Your task to perform on an android device: Set the phone to "Do not disturb". Image 0: 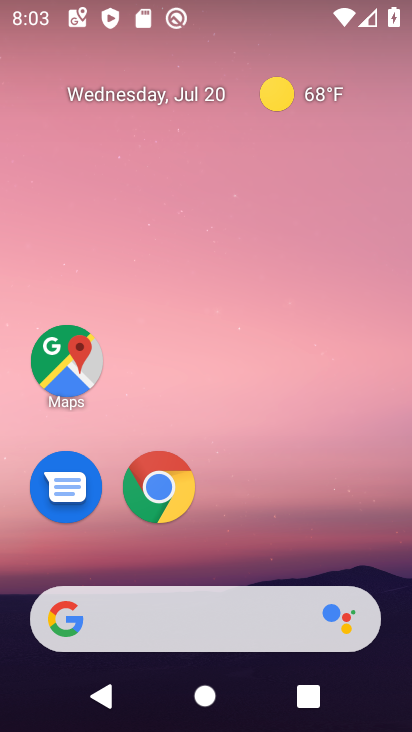
Step 0: drag from (343, 528) to (363, 94)
Your task to perform on an android device: Set the phone to "Do not disturb". Image 1: 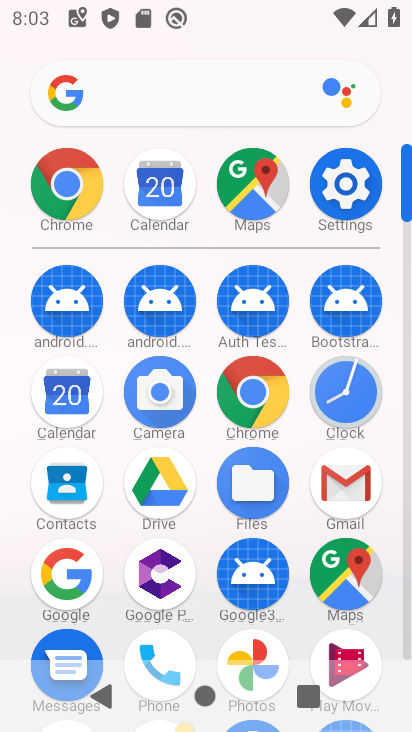
Step 1: click (360, 184)
Your task to perform on an android device: Set the phone to "Do not disturb". Image 2: 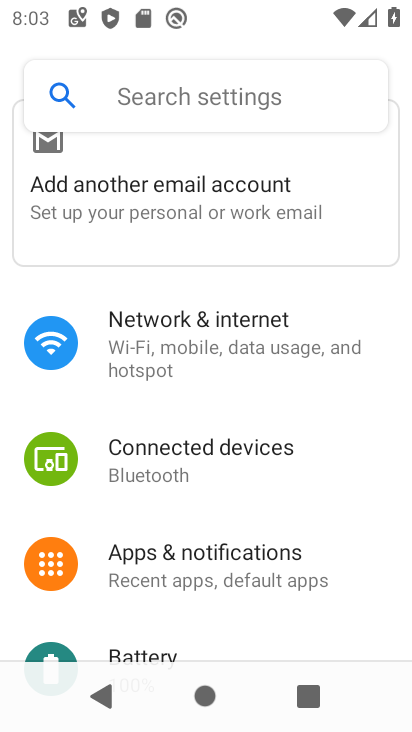
Step 2: drag from (356, 467) to (368, 402)
Your task to perform on an android device: Set the phone to "Do not disturb". Image 3: 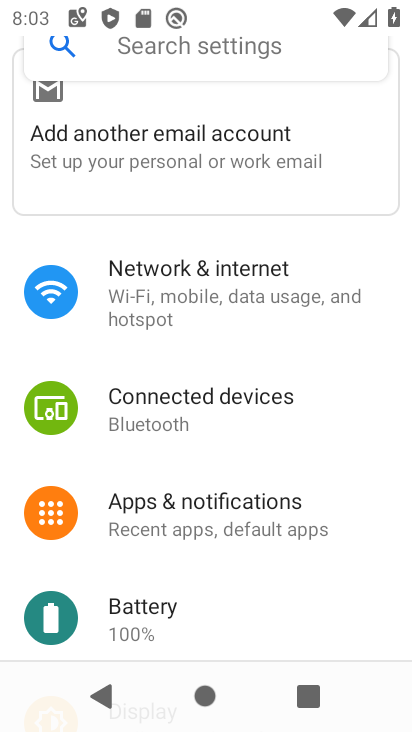
Step 3: drag from (346, 500) to (325, 376)
Your task to perform on an android device: Set the phone to "Do not disturb". Image 4: 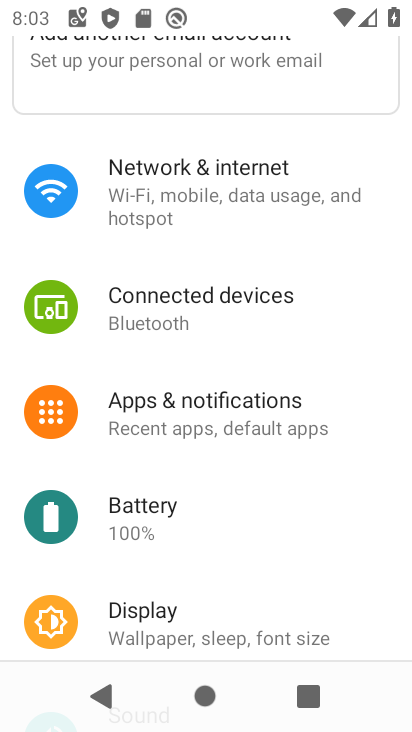
Step 4: drag from (323, 555) to (344, 425)
Your task to perform on an android device: Set the phone to "Do not disturb". Image 5: 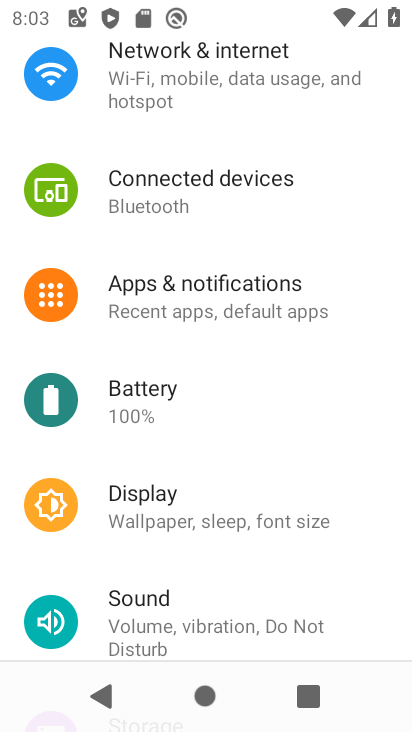
Step 5: drag from (373, 567) to (354, 432)
Your task to perform on an android device: Set the phone to "Do not disturb". Image 6: 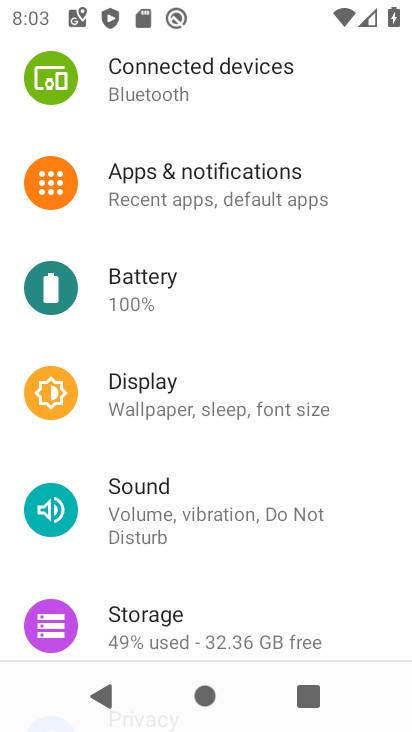
Step 6: drag from (377, 542) to (386, 400)
Your task to perform on an android device: Set the phone to "Do not disturb". Image 7: 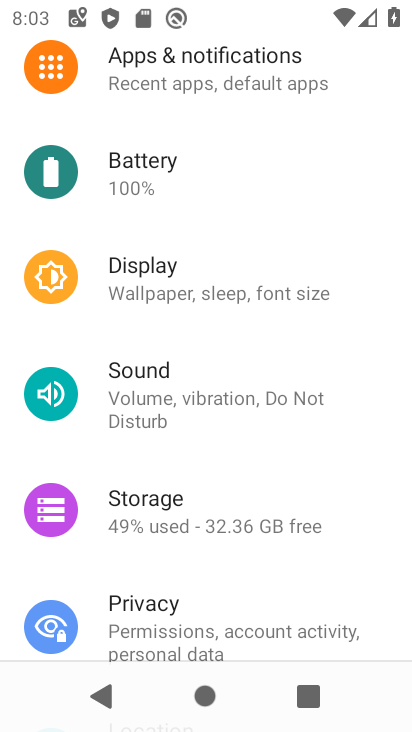
Step 7: drag from (364, 504) to (374, 361)
Your task to perform on an android device: Set the phone to "Do not disturb". Image 8: 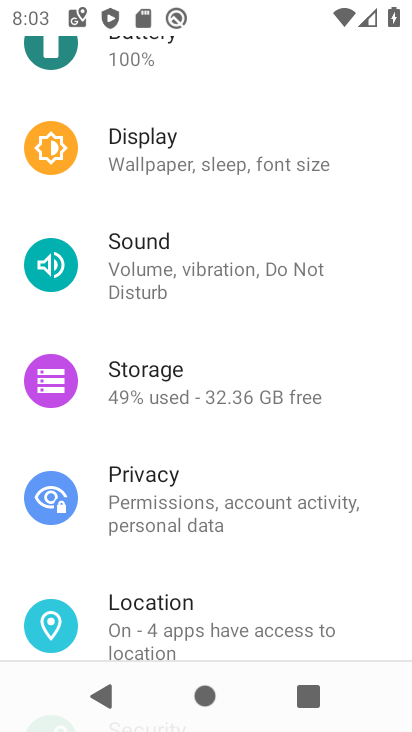
Step 8: click (312, 272)
Your task to perform on an android device: Set the phone to "Do not disturb". Image 9: 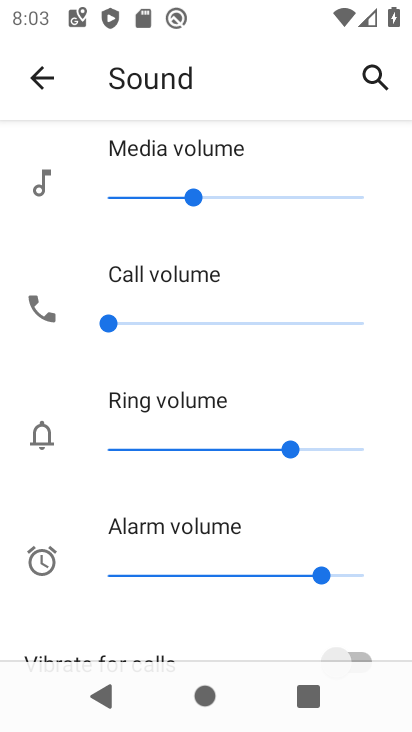
Step 9: drag from (383, 404) to (379, 285)
Your task to perform on an android device: Set the phone to "Do not disturb". Image 10: 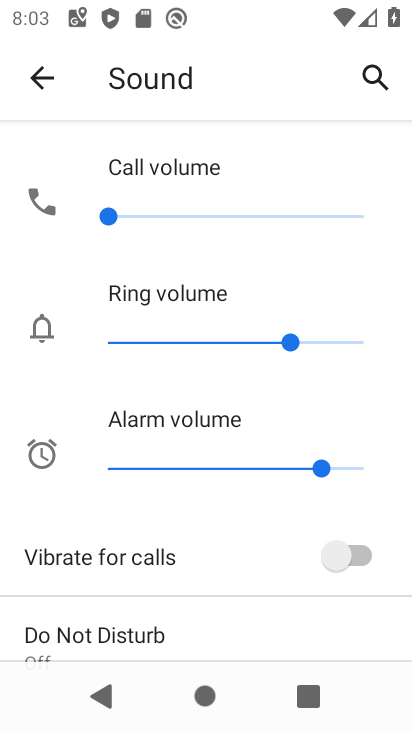
Step 10: drag from (365, 437) to (362, 258)
Your task to perform on an android device: Set the phone to "Do not disturb". Image 11: 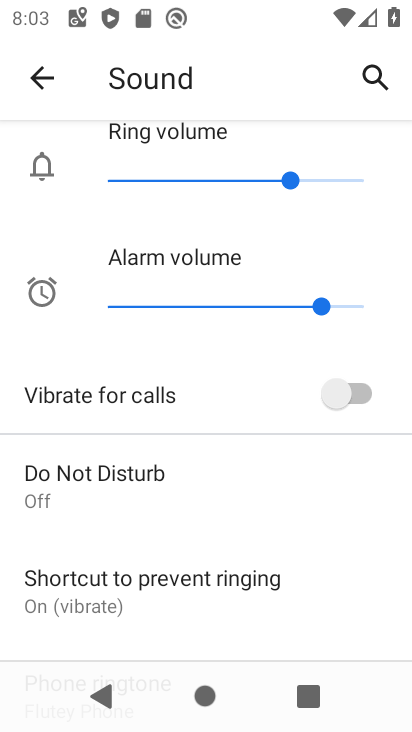
Step 11: click (212, 512)
Your task to perform on an android device: Set the phone to "Do not disturb". Image 12: 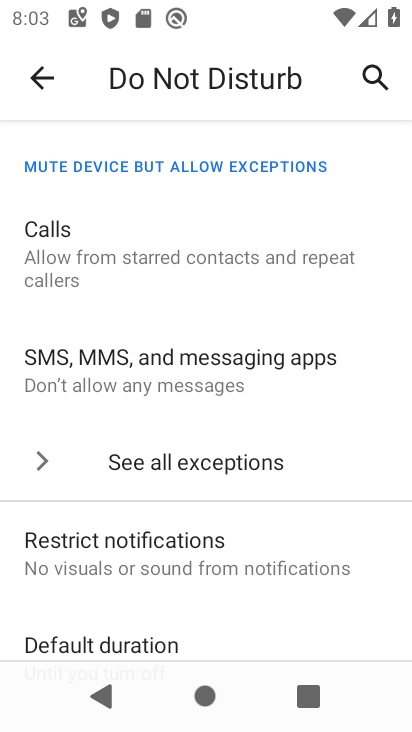
Step 12: drag from (332, 574) to (342, 428)
Your task to perform on an android device: Set the phone to "Do not disturb". Image 13: 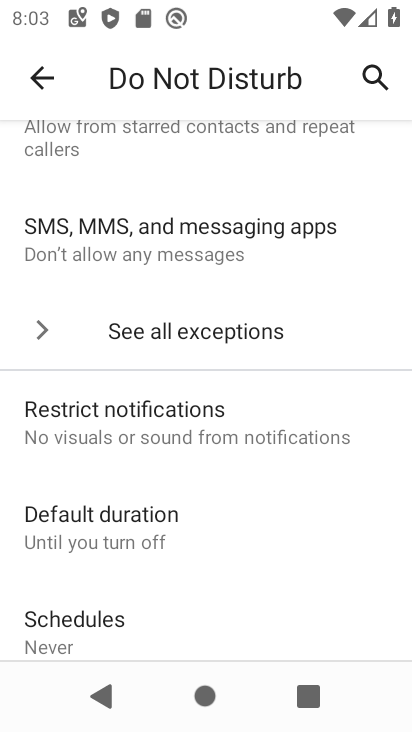
Step 13: drag from (332, 562) to (339, 411)
Your task to perform on an android device: Set the phone to "Do not disturb". Image 14: 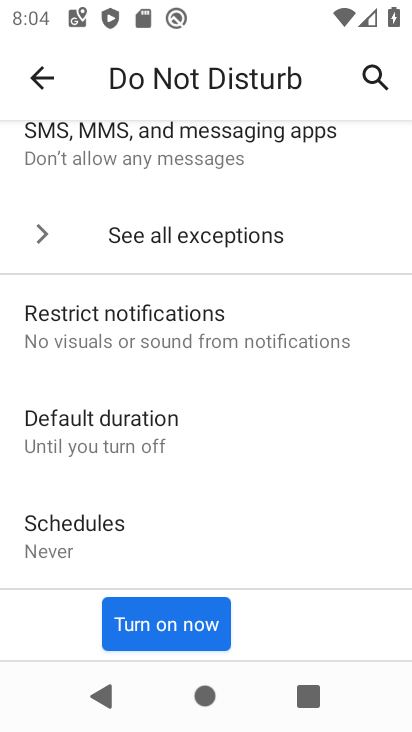
Step 14: click (202, 626)
Your task to perform on an android device: Set the phone to "Do not disturb". Image 15: 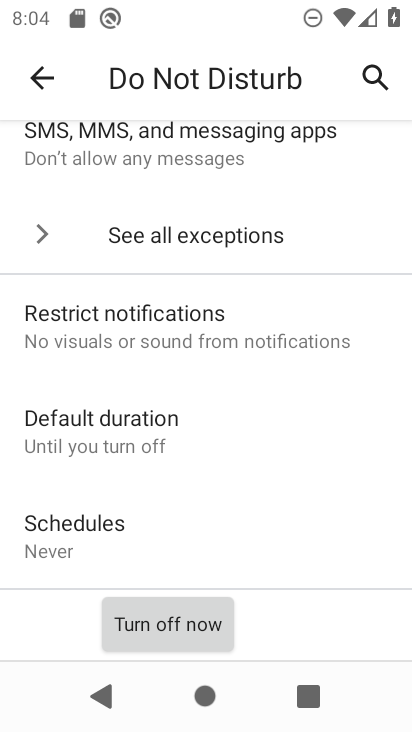
Step 15: task complete